Your task to perform on an android device: Go to eBay Image 0: 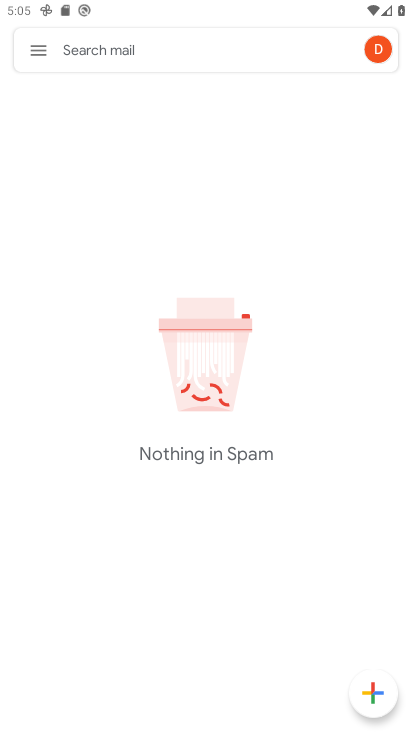
Step 0: press back button
Your task to perform on an android device: Go to eBay Image 1: 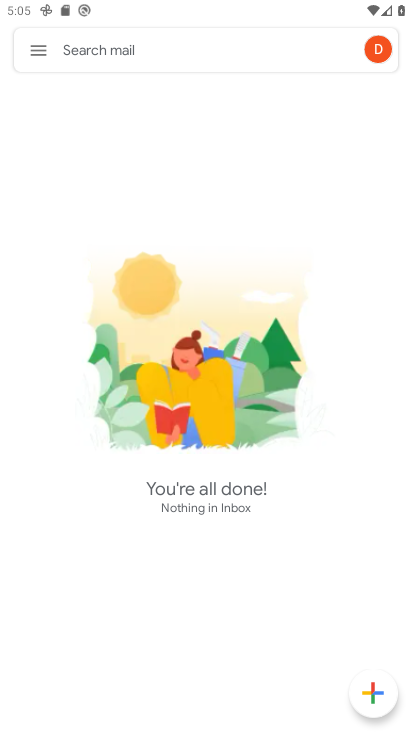
Step 1: press back button
Your task to perform on an android device: Go to eBay Image 2: 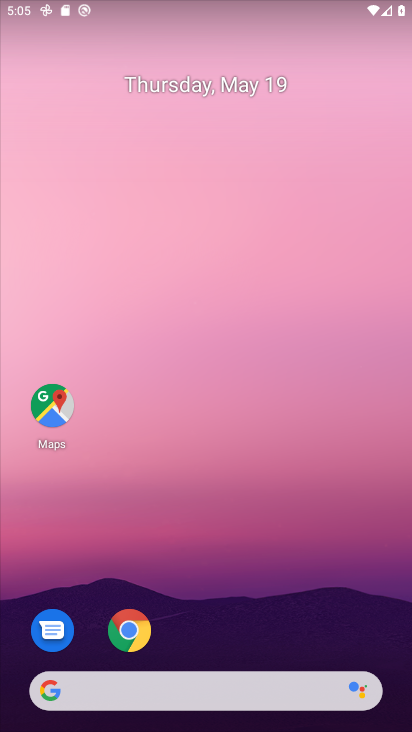
Step 2: drag from (264, 596) to (197, 20)
Your task to perform on an android device: Go to eBay Image 3: 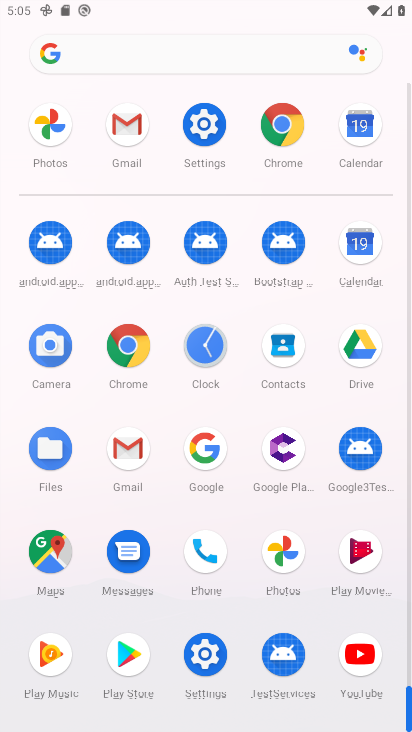
Step 3: click (279, 117)
Your task to perform on an android device: Go to eBay Image 4: 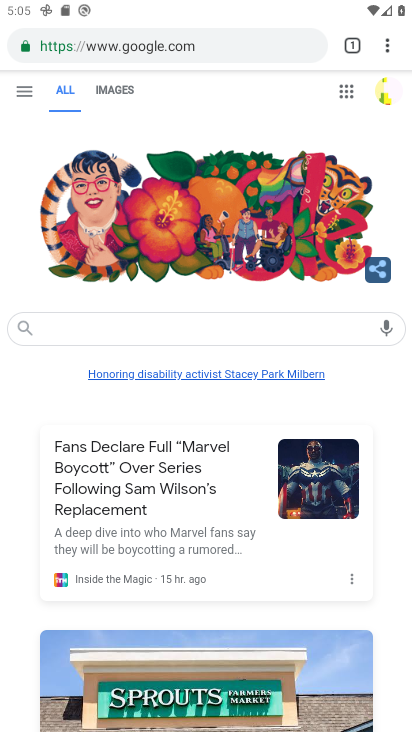
Step 4: click (154, 39)
Your task to perform on an android device: Go to eBay Image 5: 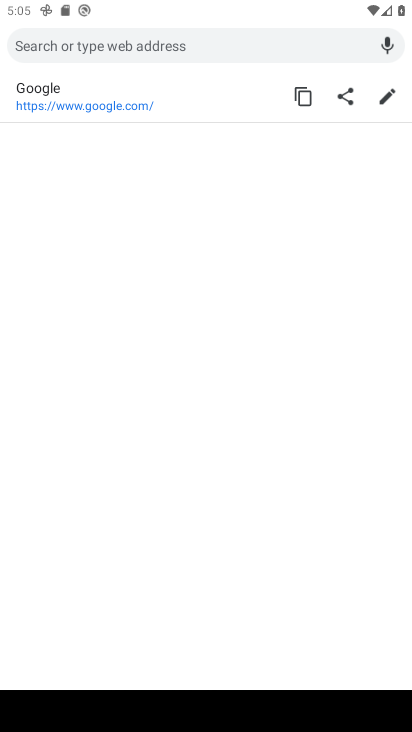
Step 5: type "eBay"
Your task to perform on an android device: Go to eBay Image 6: 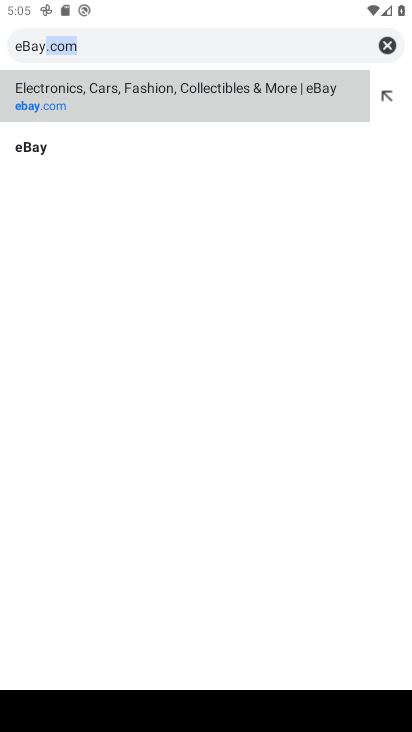
Step 6: type ""
Your task to perform on an android device: Go to eBay Image 7: 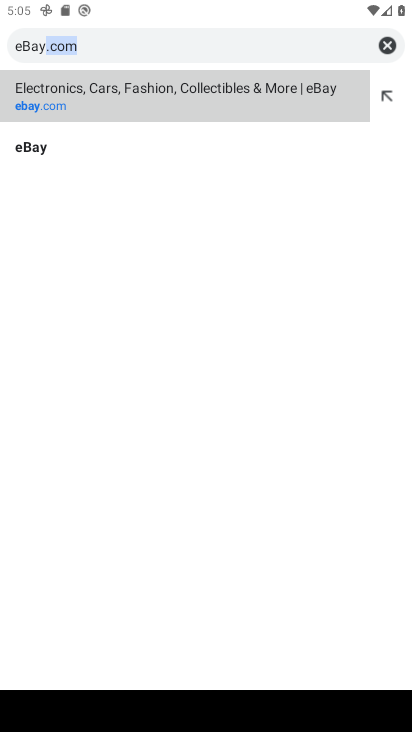
Step 7: click (166, 95)
Your task to perform on an android device: Go to eBay Image 8: 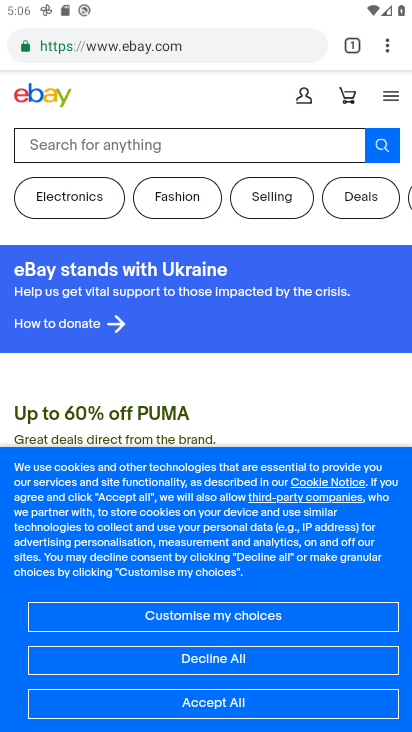
Step 8: task complete